Your task to perform on an android device: toggle location history Image 0: 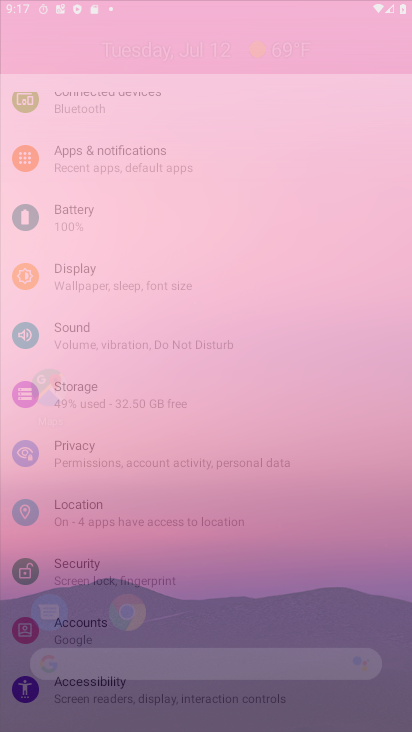
Step 0: press home button
Your task to perform on an android device: toggle location history Image 1: 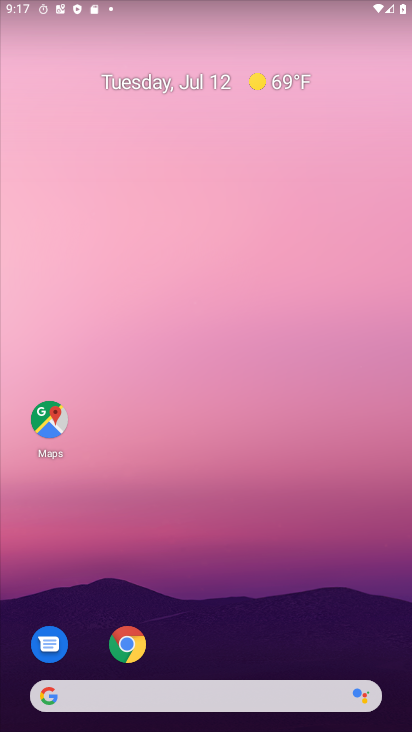
Step 1: drag from (202, 665) to (222, 0)
Your task to perform on an android device: toggle location history Image 2: 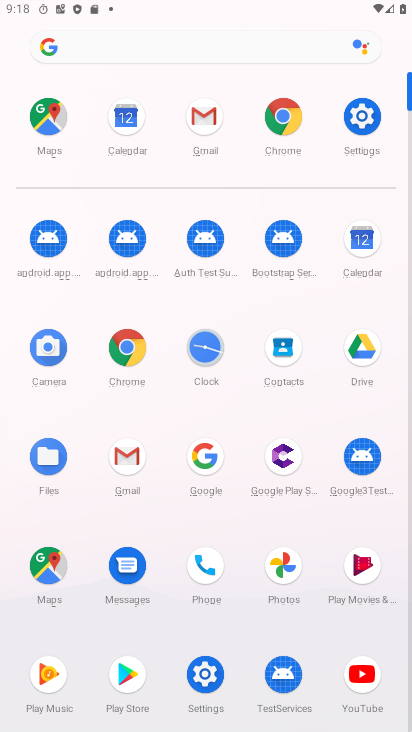
Step 2: click (362, 110)
Your task to perform on an android device: toggle location history Image 3: 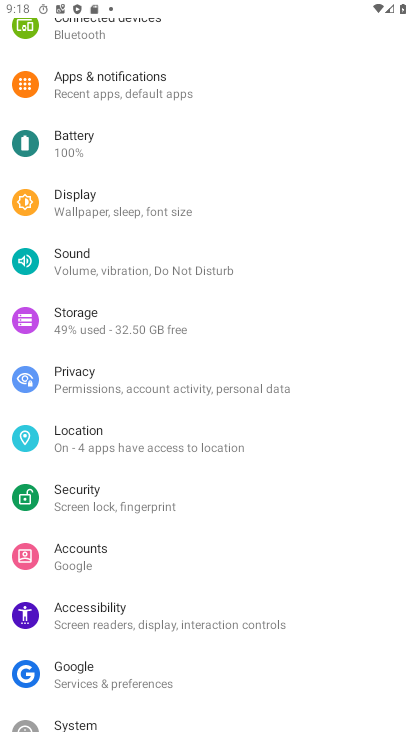
Step 3: click (123, 426)
Your task to perform on an android device: toggle location history Image 4: 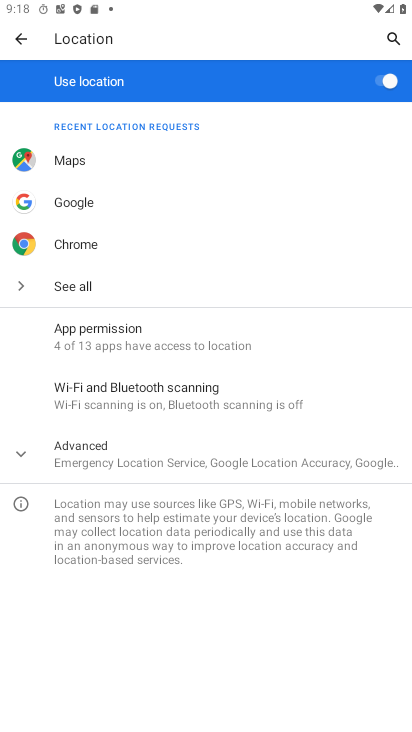
Step 4: click (23, 453)
Your task to perform on an android device: toggle location history Image 5: 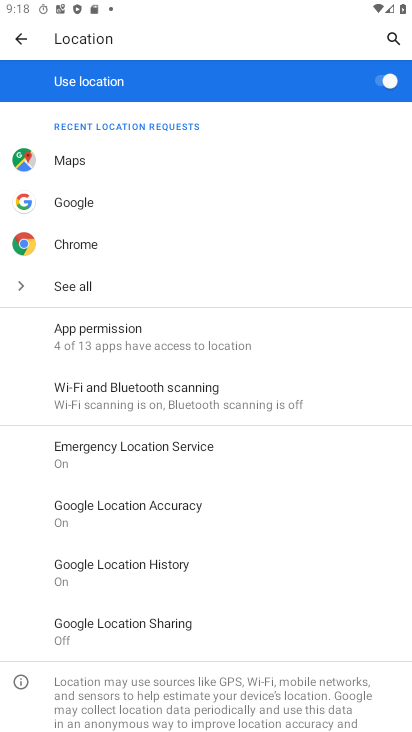
Step 5: click (103, 574)
Your task to perform on an android device: toggle location history Image 6: 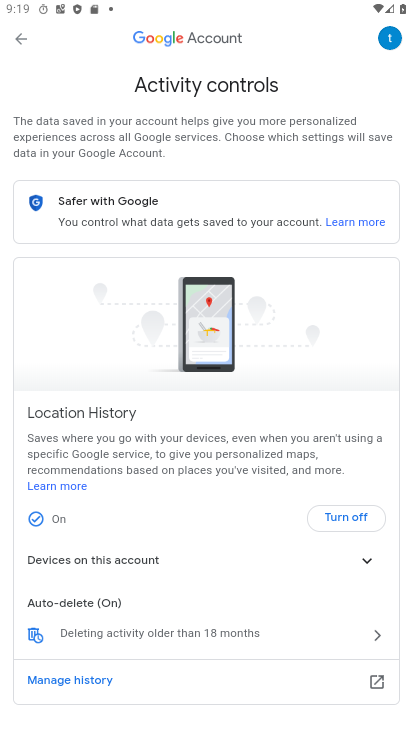
Step 6: task complete